Your task to perform on an android device: When is my next meeting? Image 0: 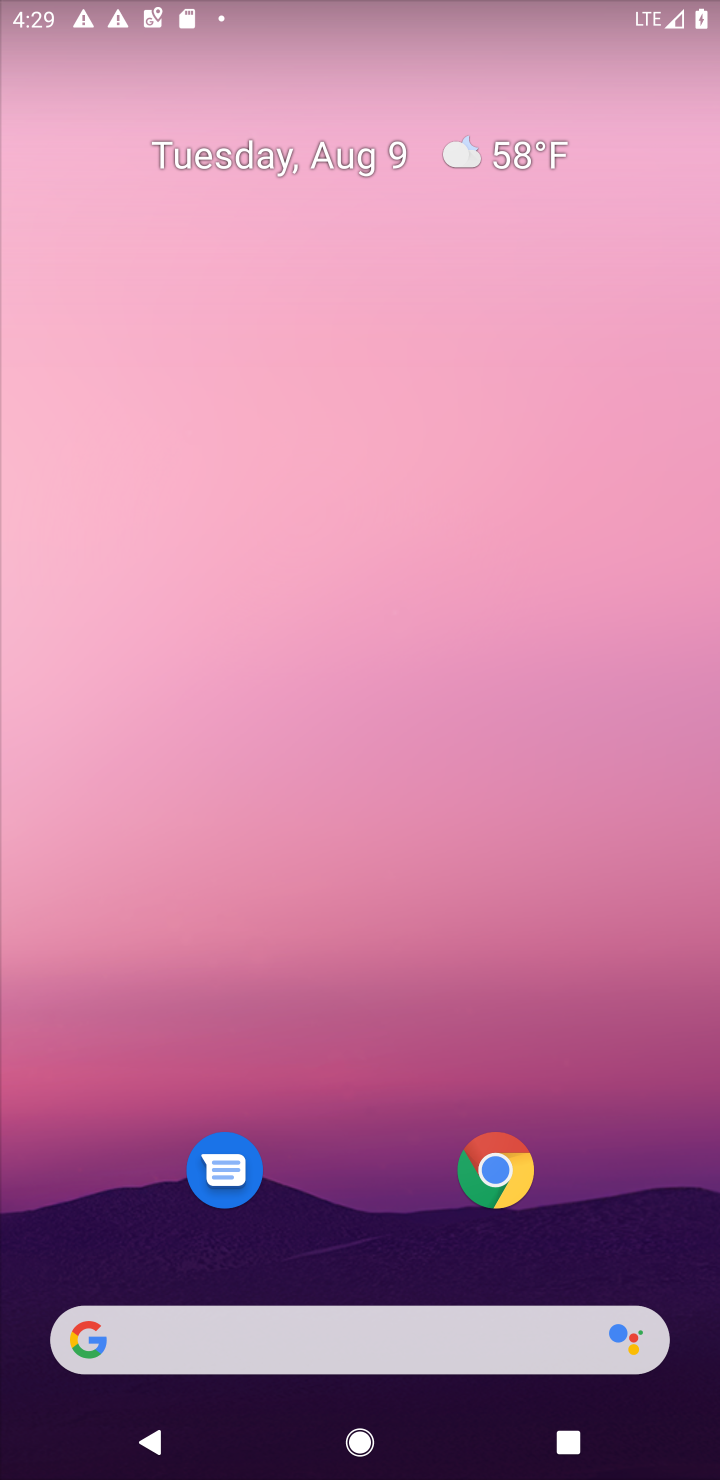
Step 0: press home button
Your task to perform on an android device: When is my next meeting? Image 1: 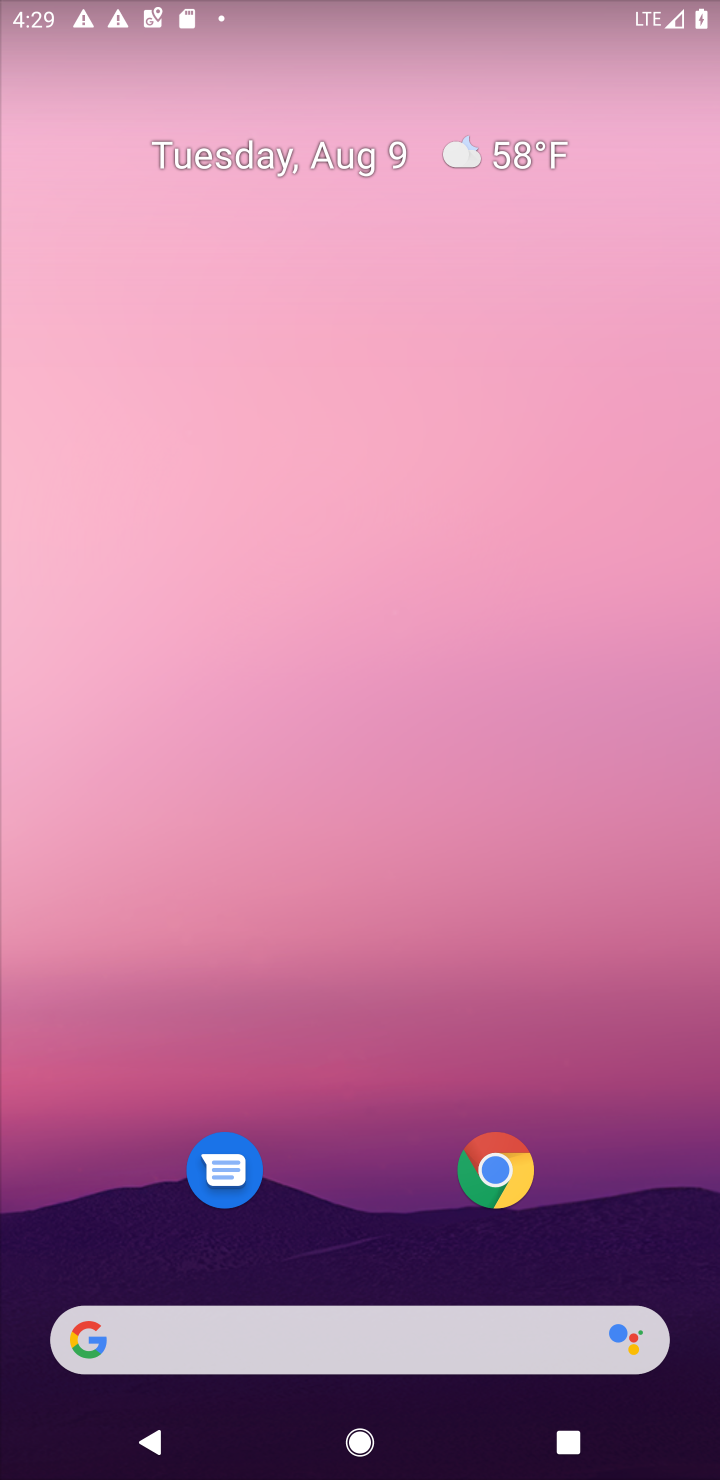
Step 1: drag from (374, 1062) to (422, 6)
Your task to perform on an android device: When is my next meeting? Image 2: 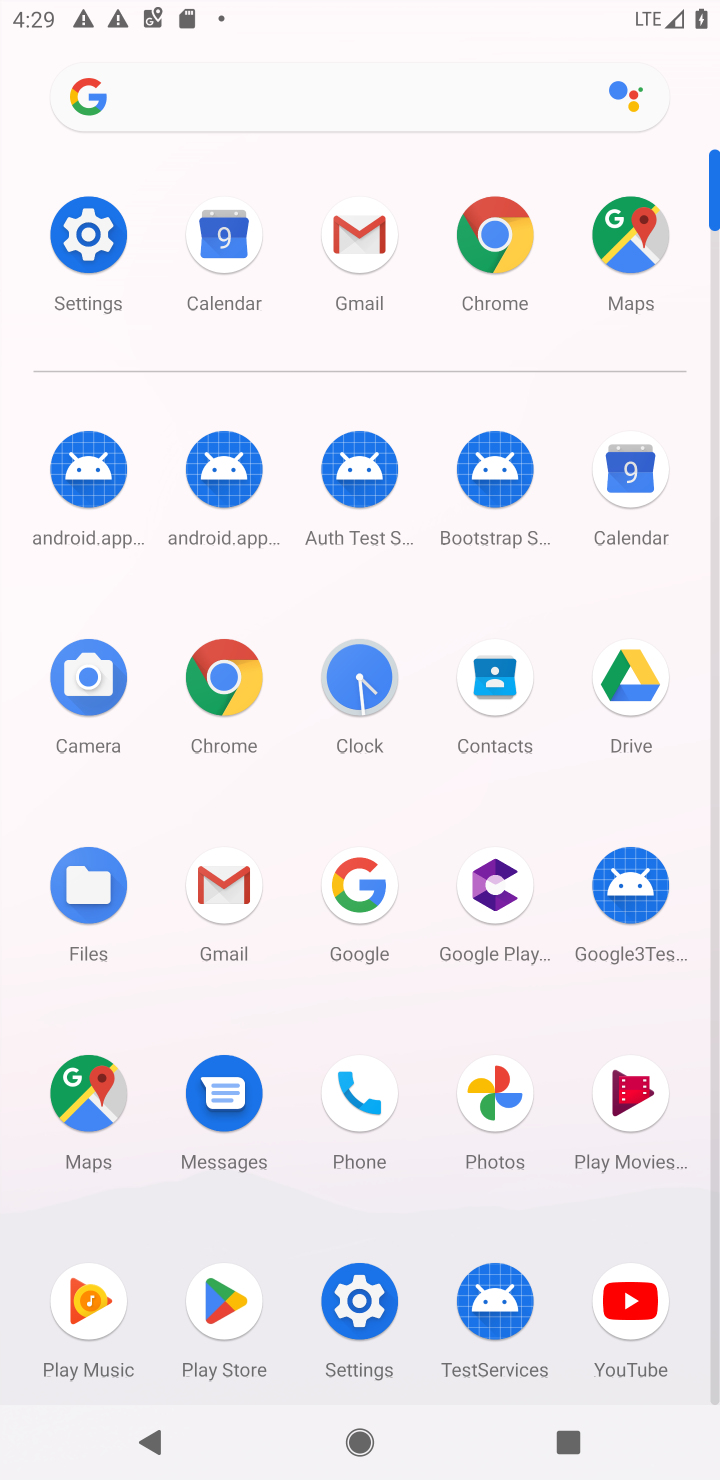
Step 2: click (622, 455)
Your task to perform on an android device: When is my next meeting? Image 3: 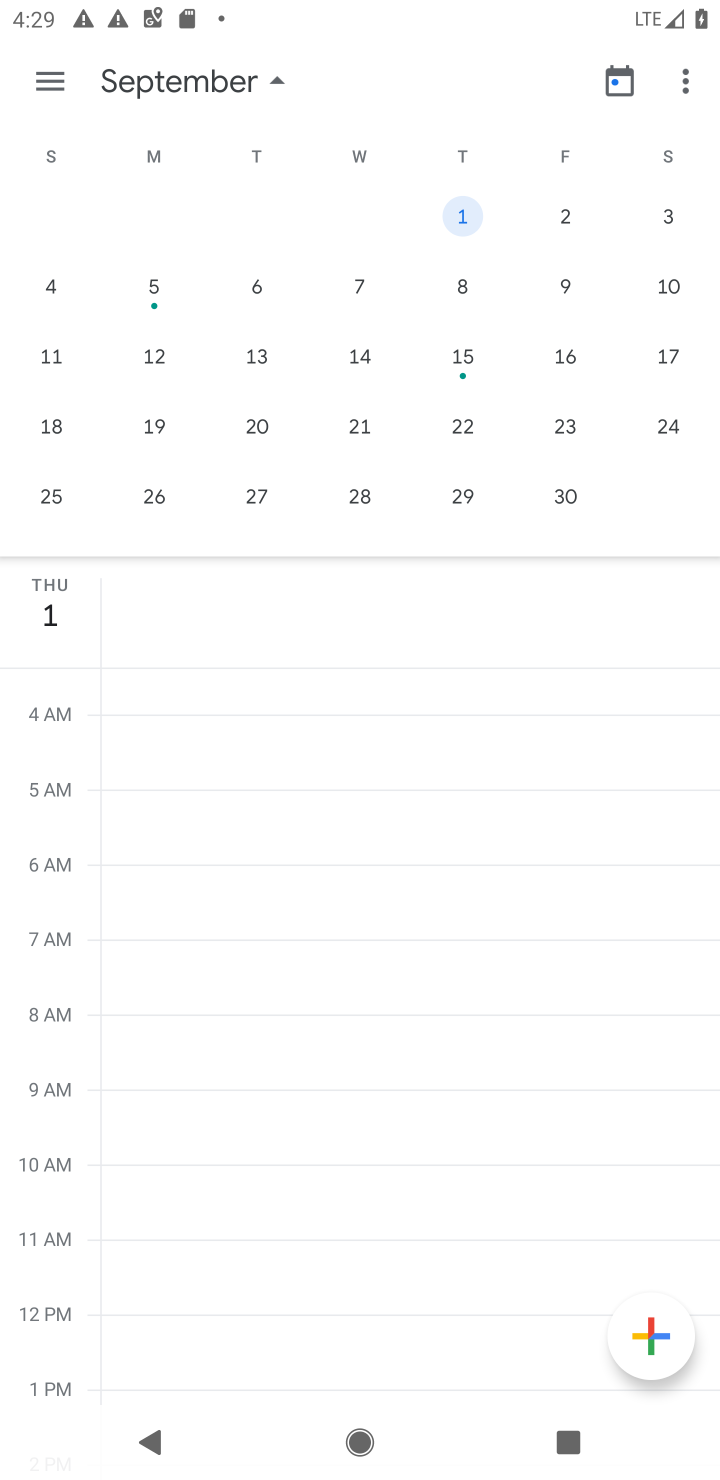
Step 3: click (47, 90)
Your task to perform on an android device: When is my next meeting? Image 4: 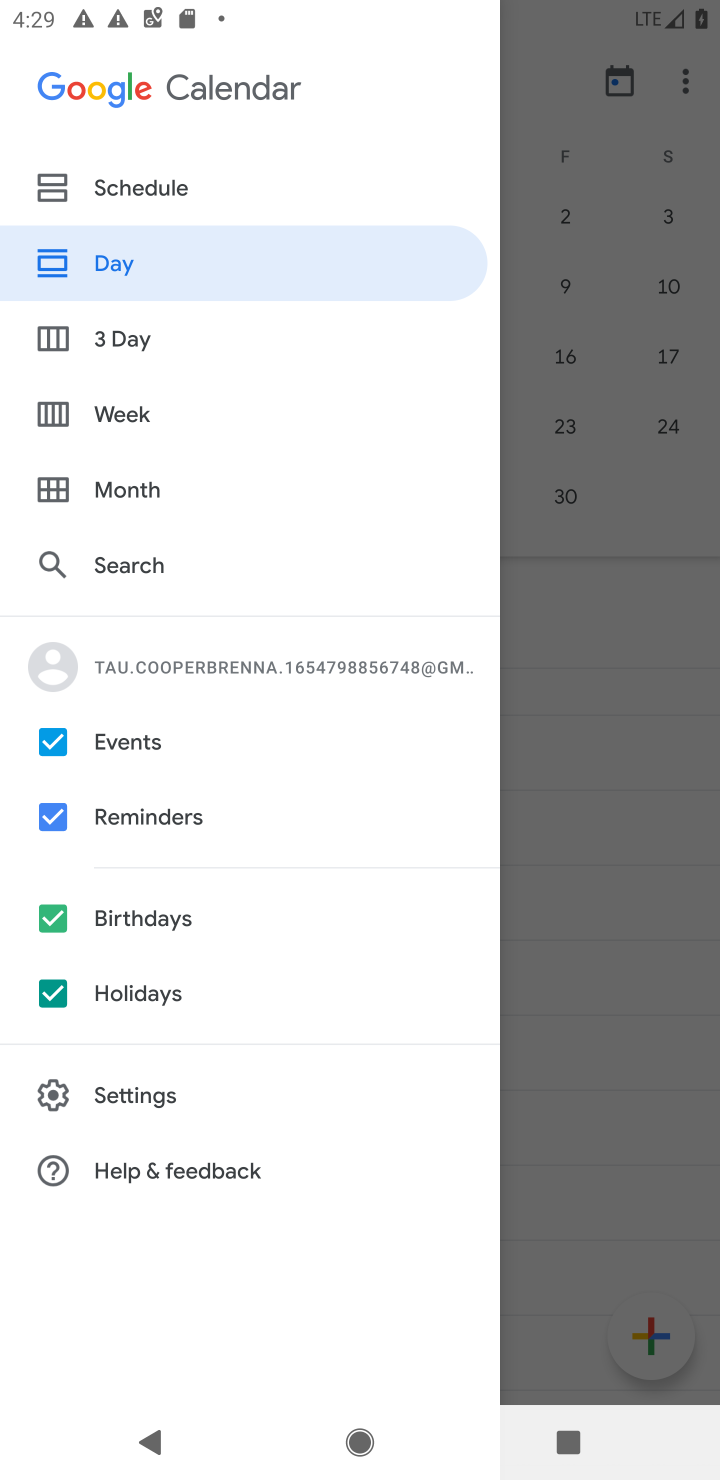
Step 4: click (109, 195)
Your task to perform on an android device: When is my next meeting? Image 5: 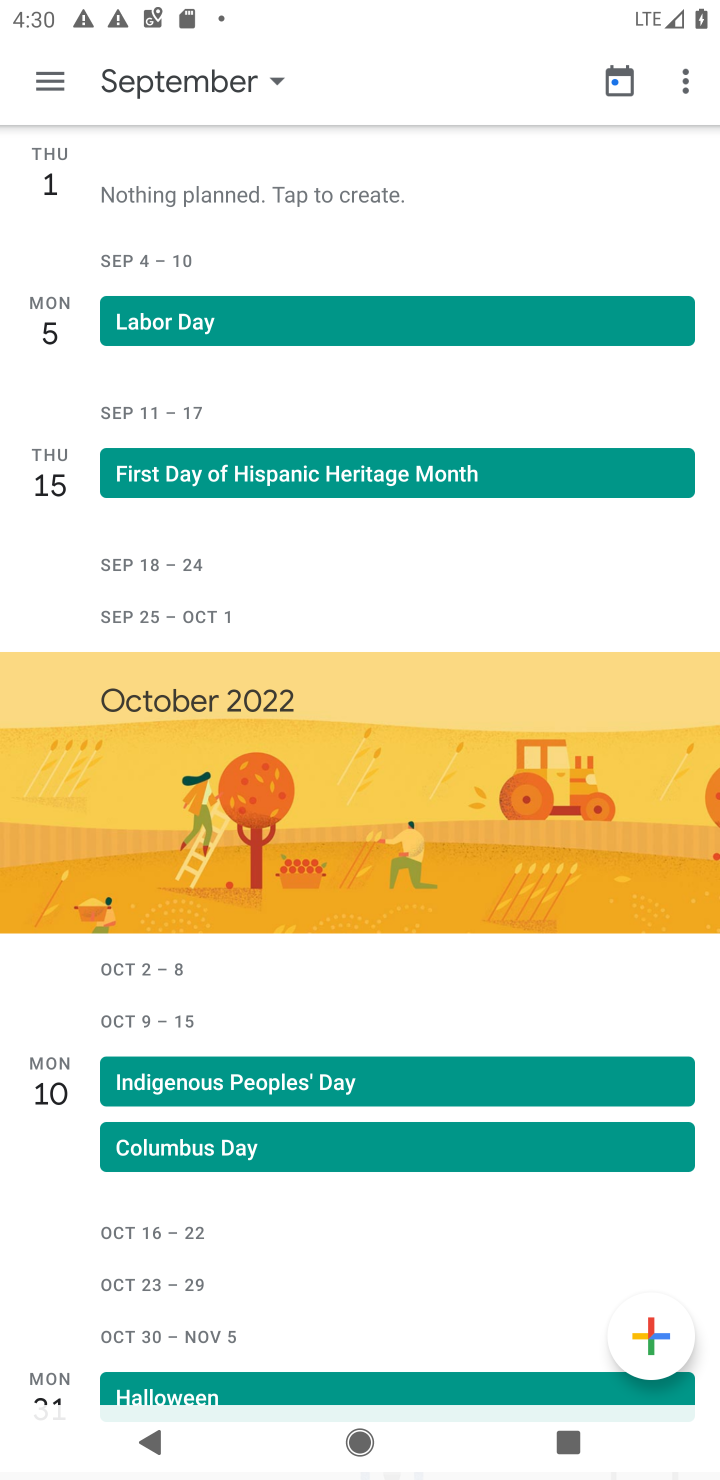
Step 5: task complete